Your task to perform on an android device: Go to calendar. Show me events next week Image 0: 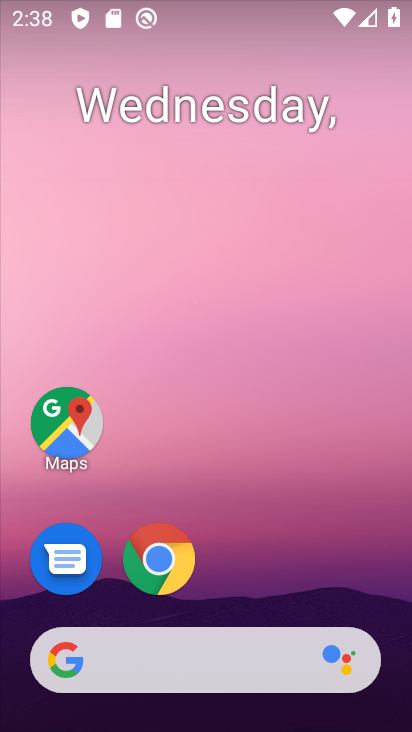
Step 0: drag from (180, 550) to (351, 46)
Your task to perform on an android device: Go to calendar. Show me events next week Image 1: 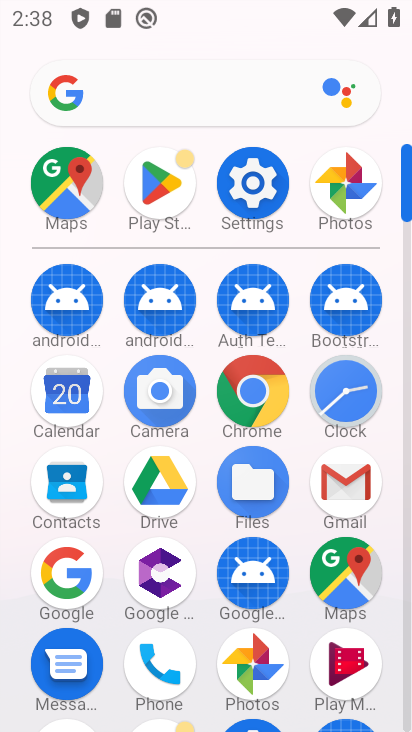
Step 1: click (77, 401)
Your task to perform on an android device: Go to calendar. Show me events next week Image 2: 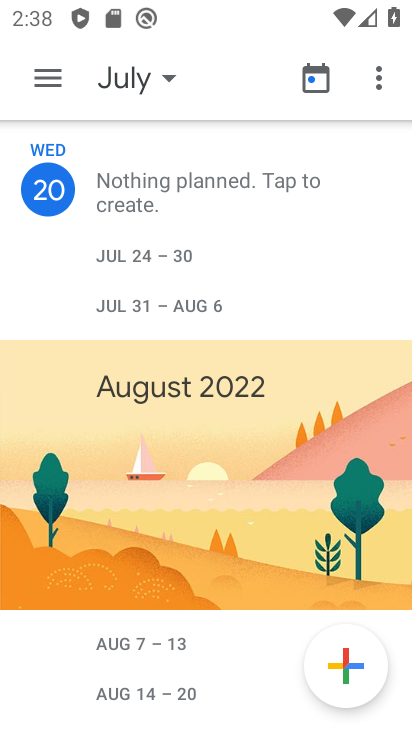
Step 2: click (179, 91)
Your task to perform on an android device: Go to calendar. Show me events next week Image 3: 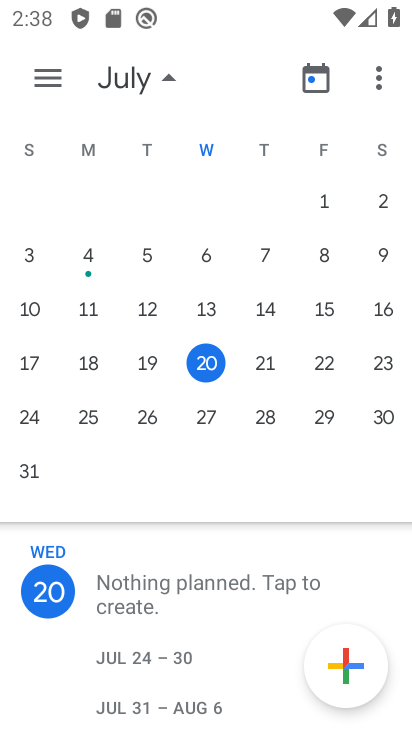
Step 3: drag from (393, 290) to (56, 267)
Your task to perform on an android device: Go to calendar. Show me events next week Image 4: 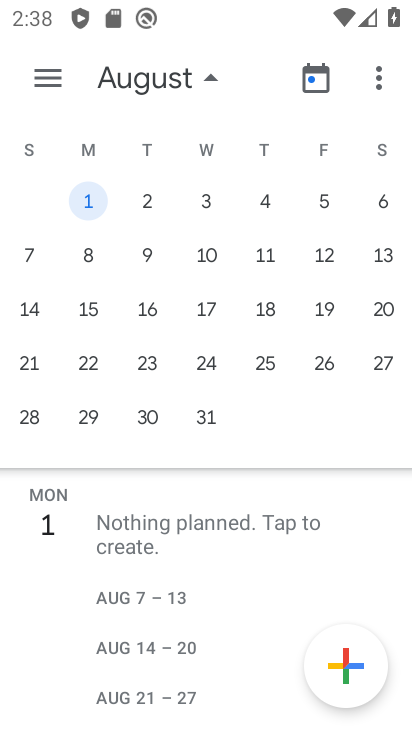
Step 4: drag from (77, 342) to (367, 367)
Your task to perform on an android device: Go to calendar. Show me events next week Image 5: 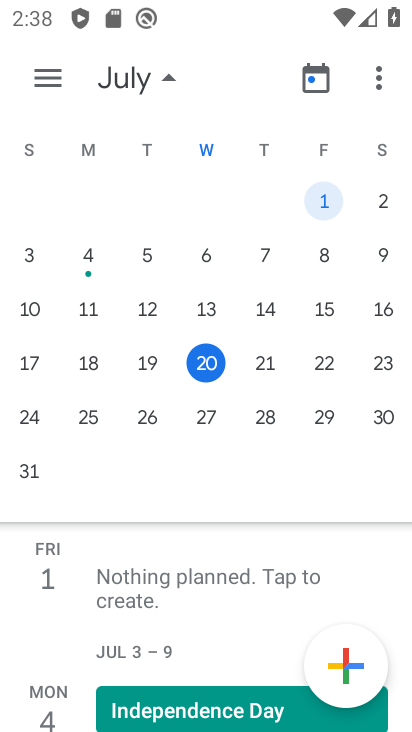
Step 5: click (79, 412)
Your task to perform on an android device: Go to calendar. Show me events next week Image 6: 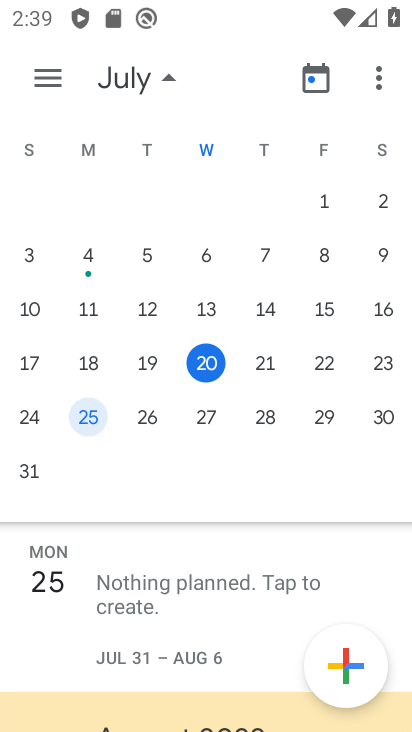
Step 6: task complete